Your task to perform on an android device: Open Amazon Image 0: 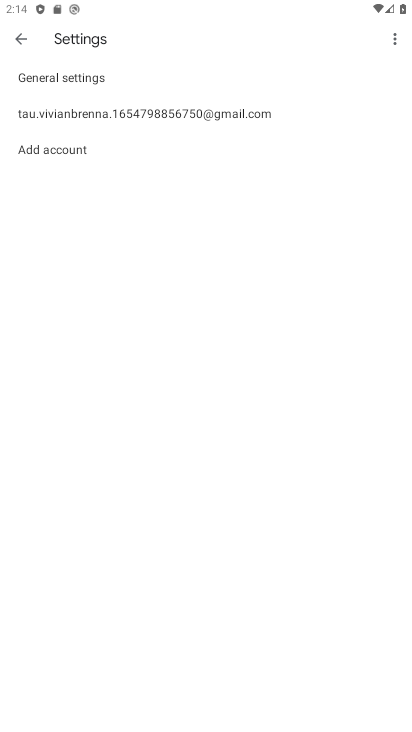
Step 0: press home button
Your task to perform on an android device: Open Amazon Image 1: 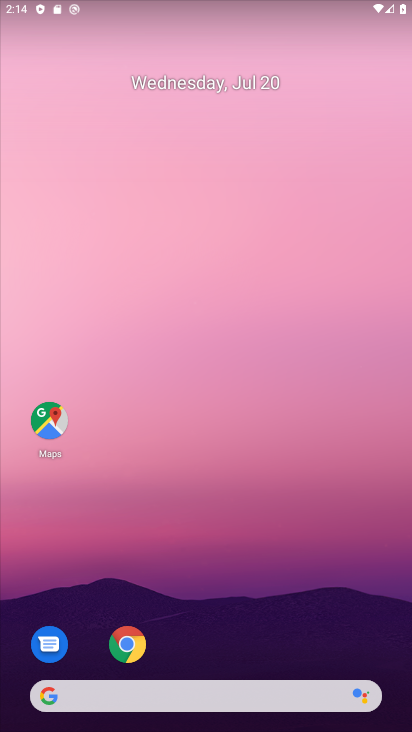
Step 1: click (126, 638)
Your task to perform on an android device: Open Amazon Image 2: 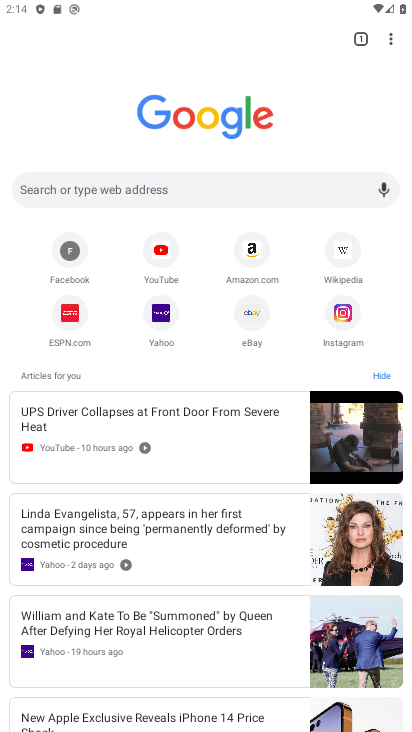
Step 2: click (260, 236)
Your task to perform on an android device: Open Amazon Image 3: 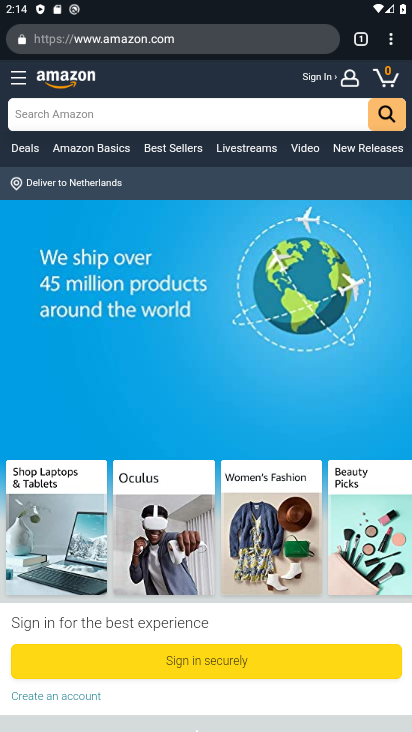
Step 3: task complete